Your task to perform on an android device: View the shopping cart on amazon.com. Add "razer nari" to the cart on amazon.com Image 0: 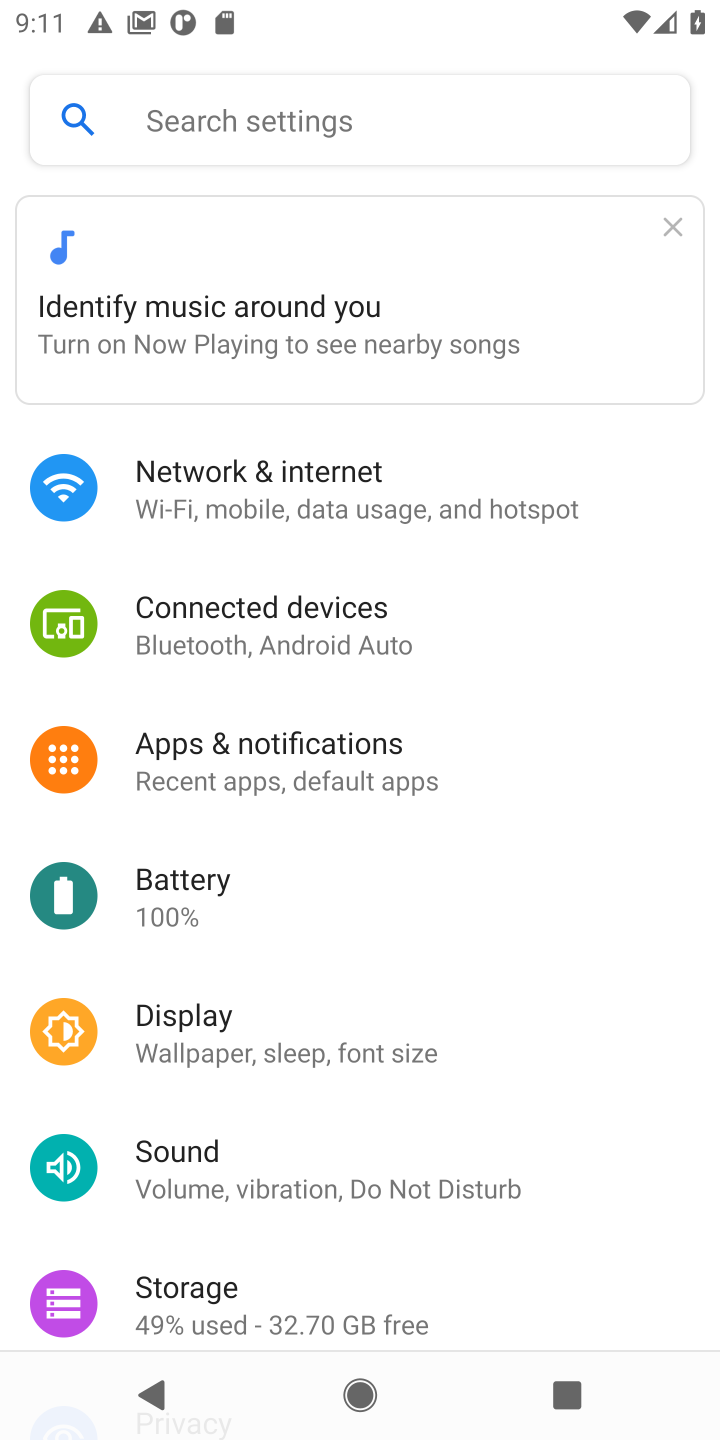
Step 0: press home button
Your task to perform on an android device: View the shopping cart on amazon.com. Add "razer nari" to the cart on amazon.com Image 1: 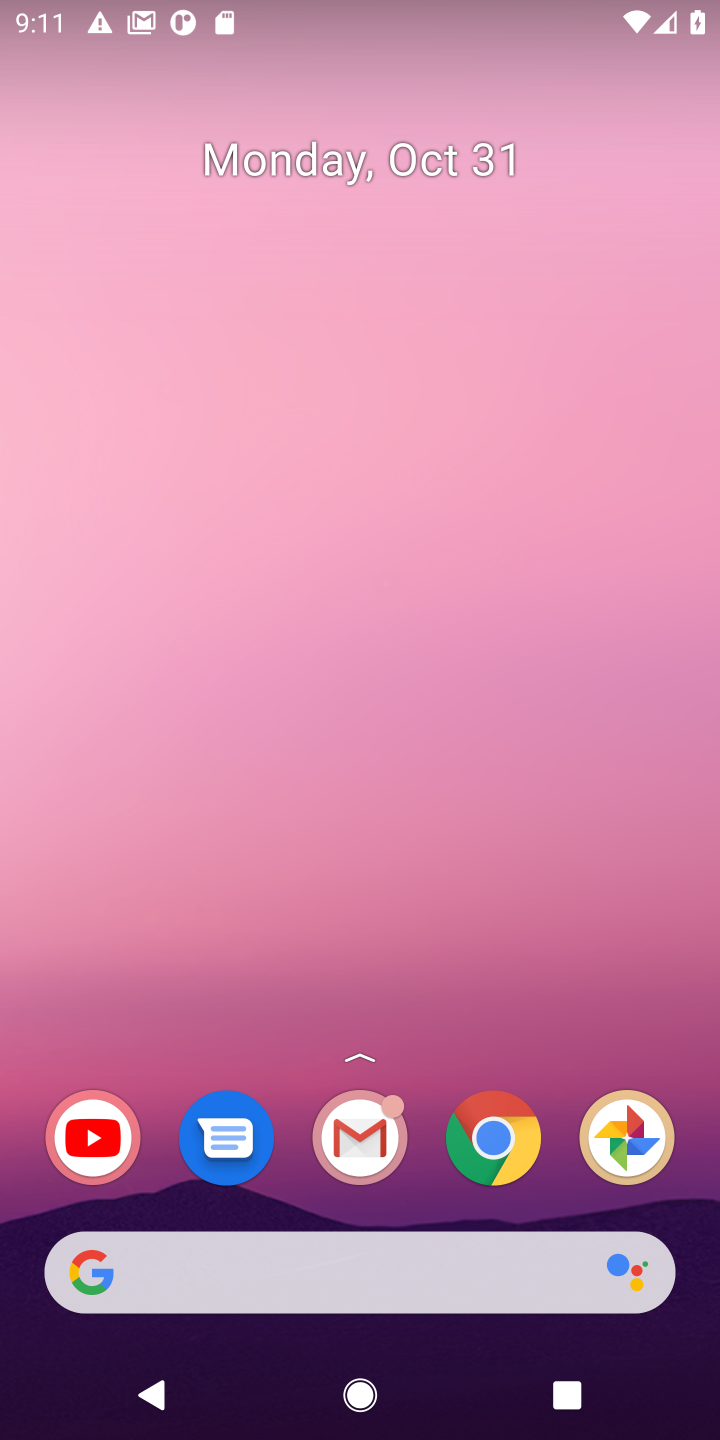
Step 1: drag from (458, 1314) to (311, 363)
Your task to perform on an android device: View the shopping cart on amazon.com. Add "razer nari" to the cart on amazon.com Image 2: 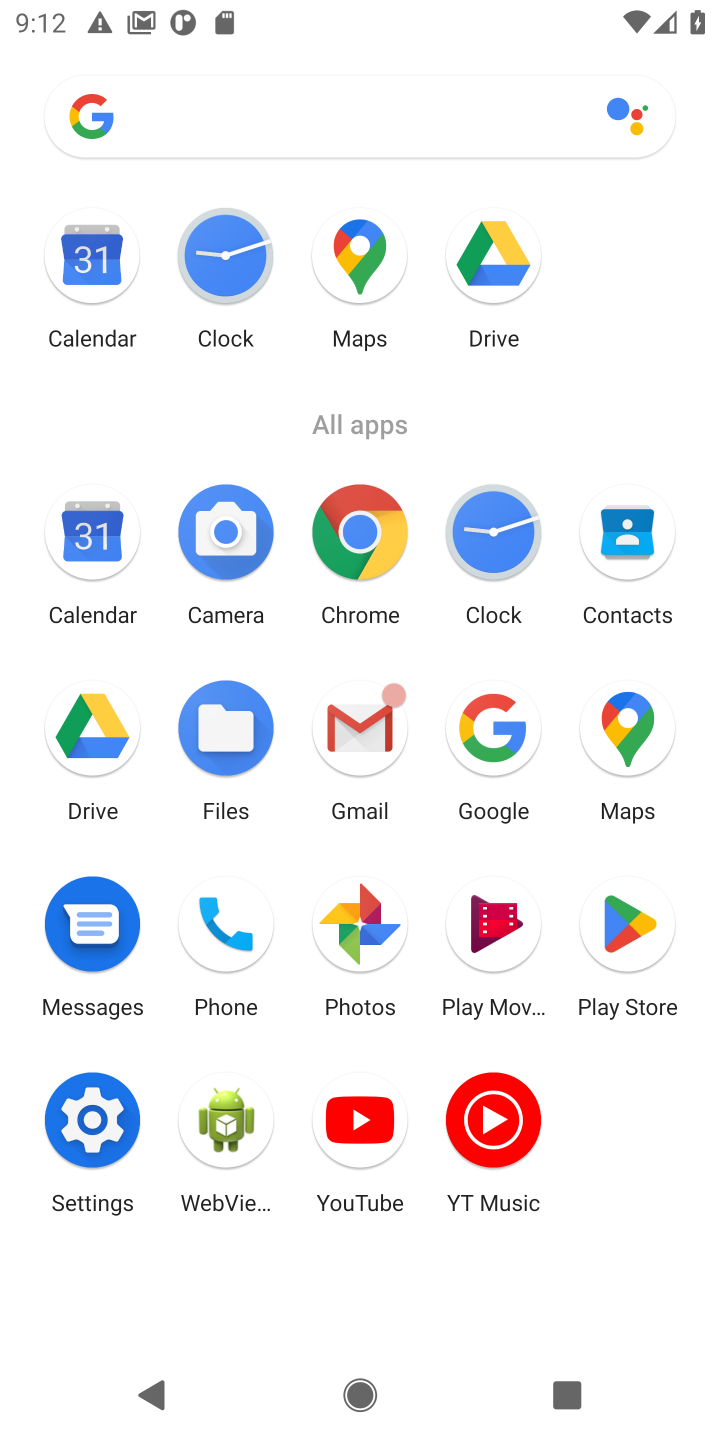
Step 2: click (360, 539)
Your task to perform on an android device: View the shopping cart on amazon.com. Add "razer nari" to the cart on amazon.com Image 3: 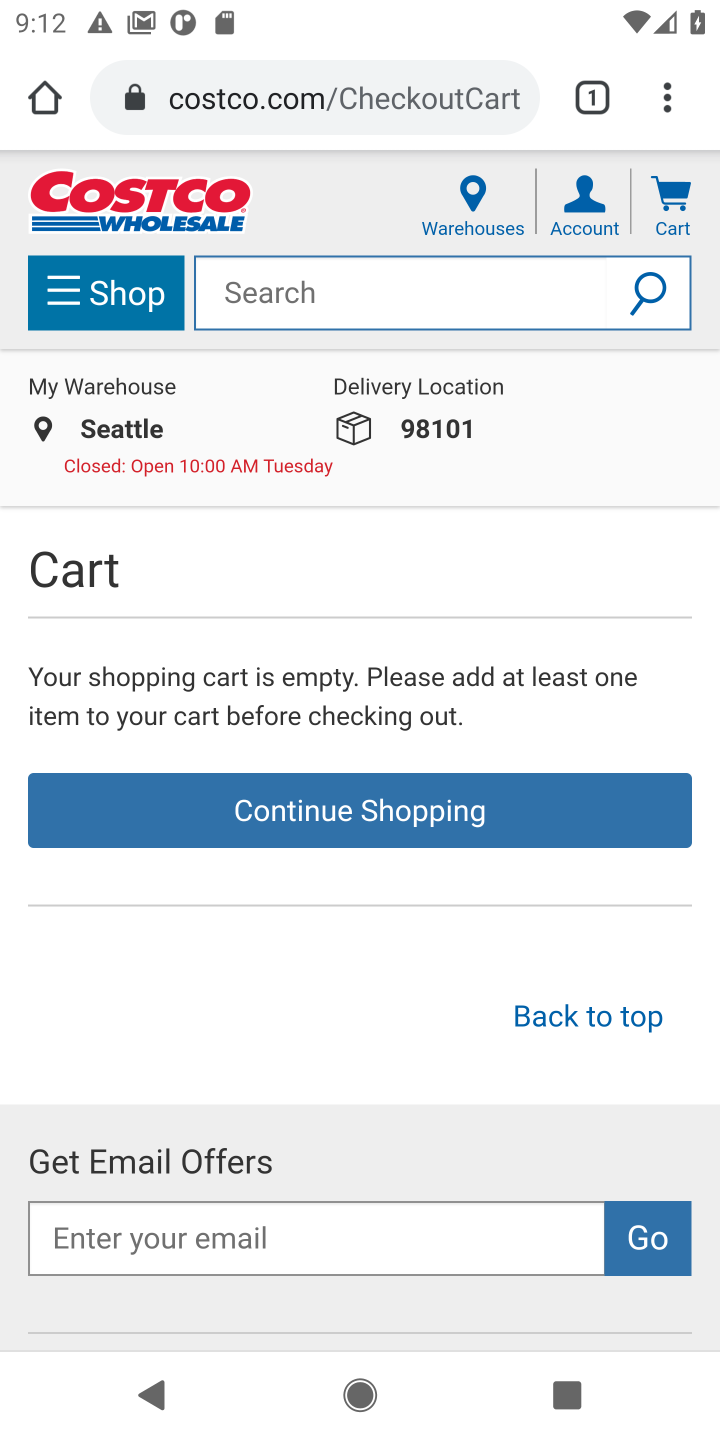
Step 3: click (275, 103)
Your task to perform on an android device: View the shopping cart on amazon.com. Add "razer nari" to the cart on amazon.com Image 4: 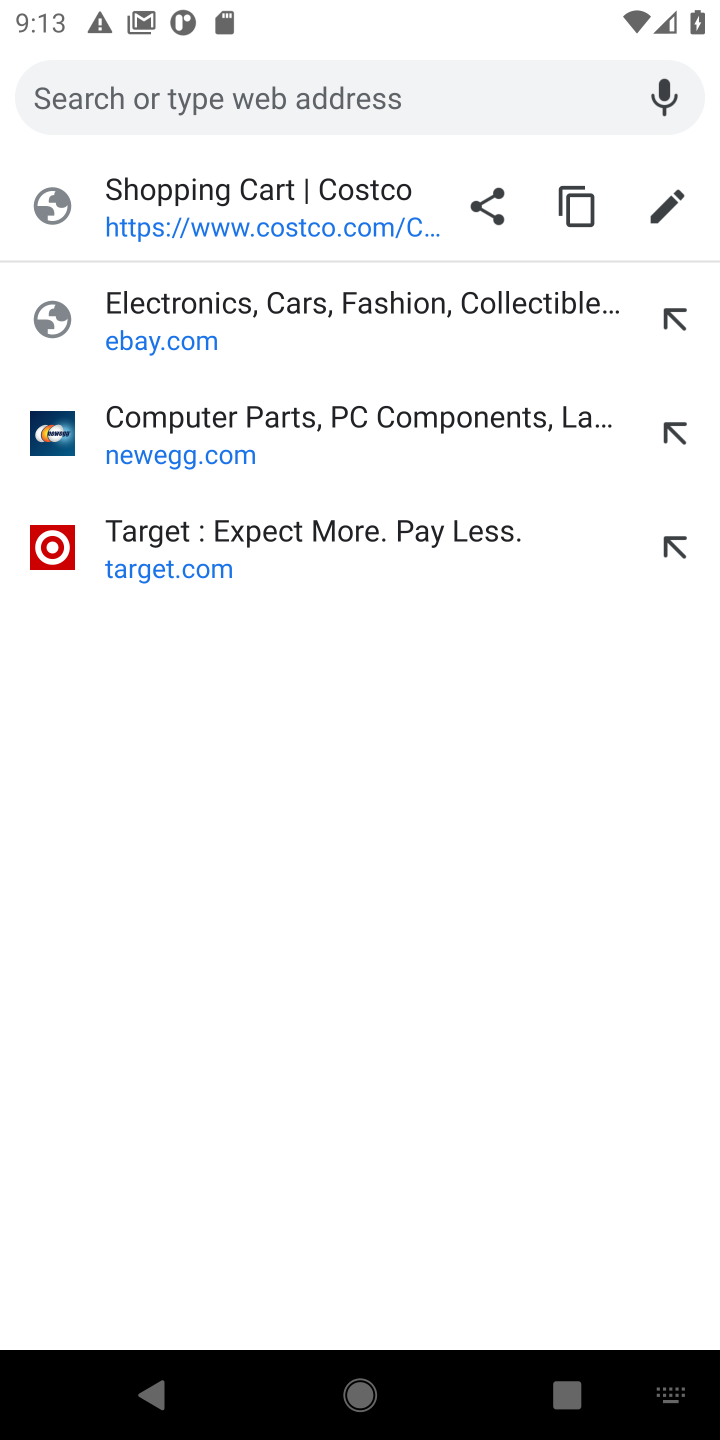
Step 4: click (398, 92)
Your task to perform on an android device: View the shopping cart on amazon.com. Add "razer nari" to the cart on amazon.com Image 5: 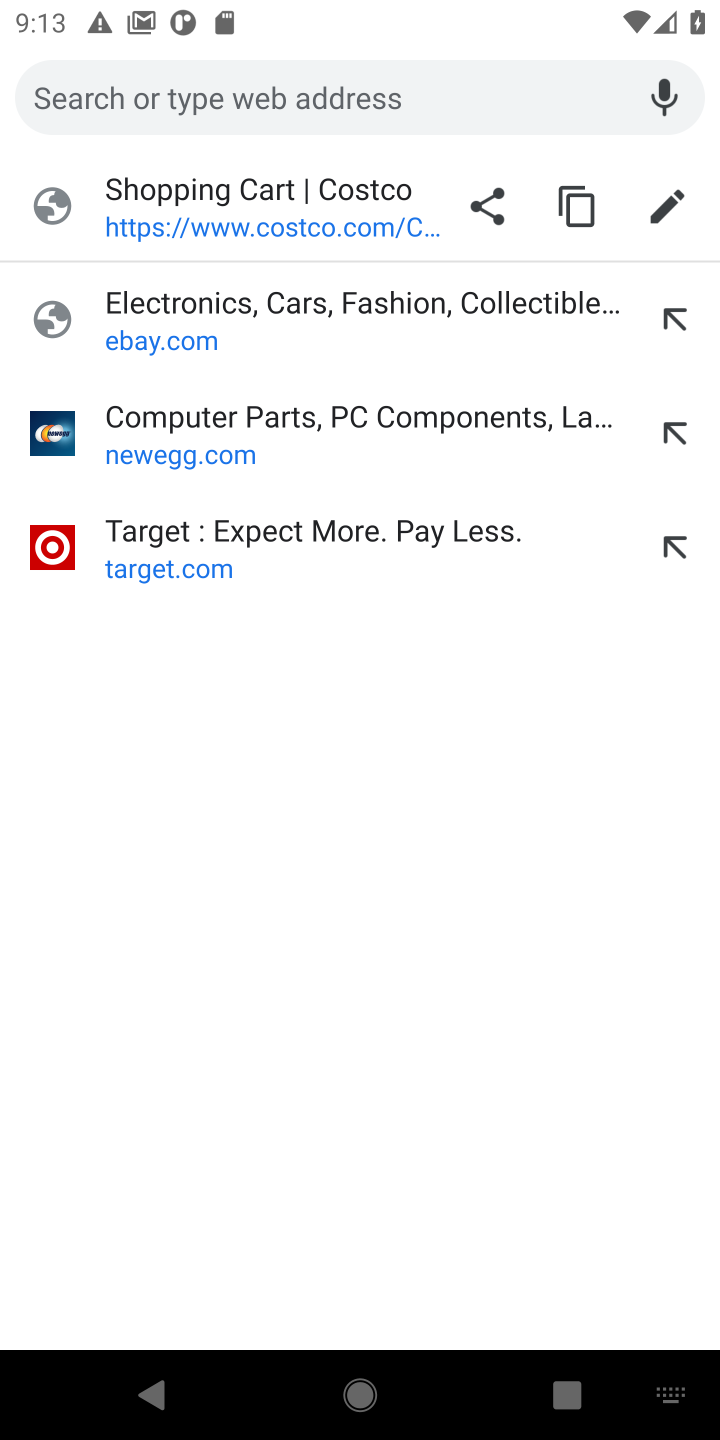
Step 5: type " amazon.com"
Your task to perform on an android device: View the shopping cart on amazon.com. Add "razer nari" to the cart on amazon.com Image 6: 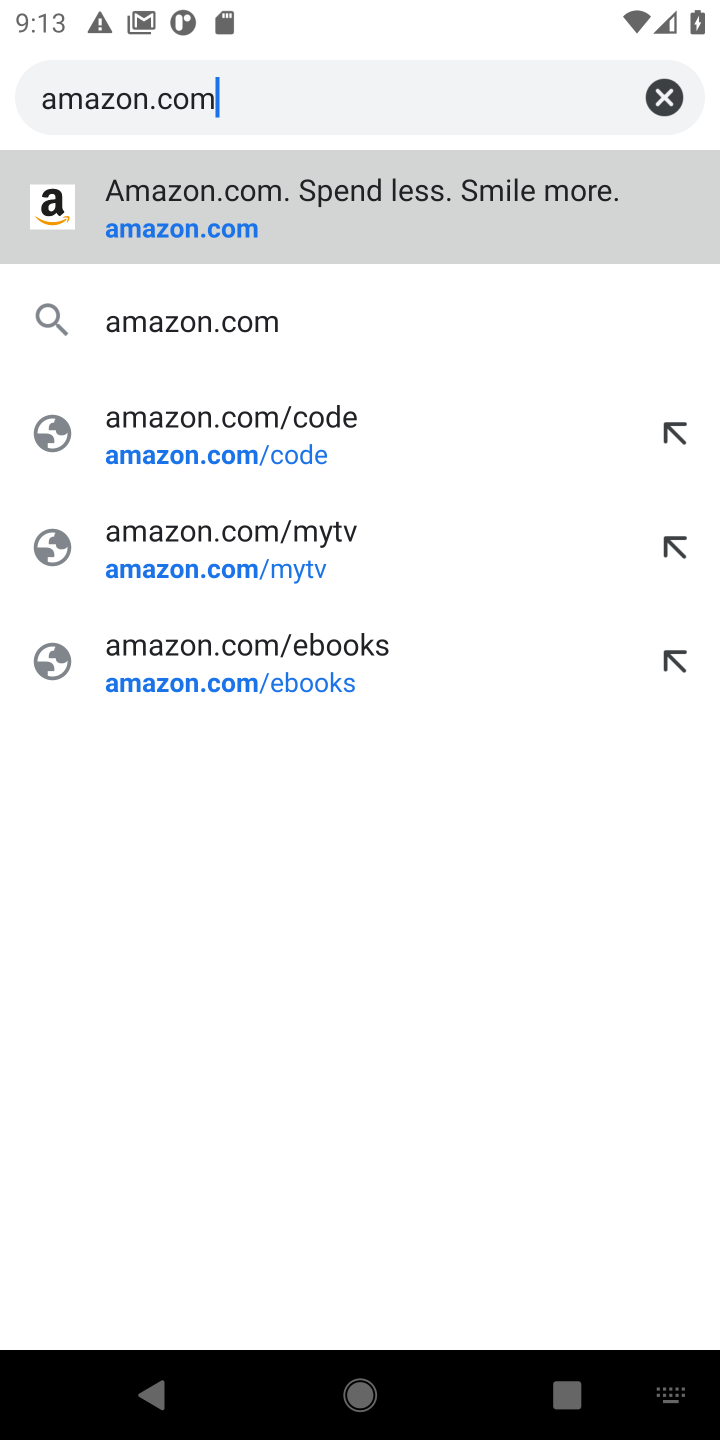
Step 6: click (179, 227)
Your task to perform on an android device: View the shopping cart on amazon.com. Add "razer nari" to the cart on amazon.com Image 7: 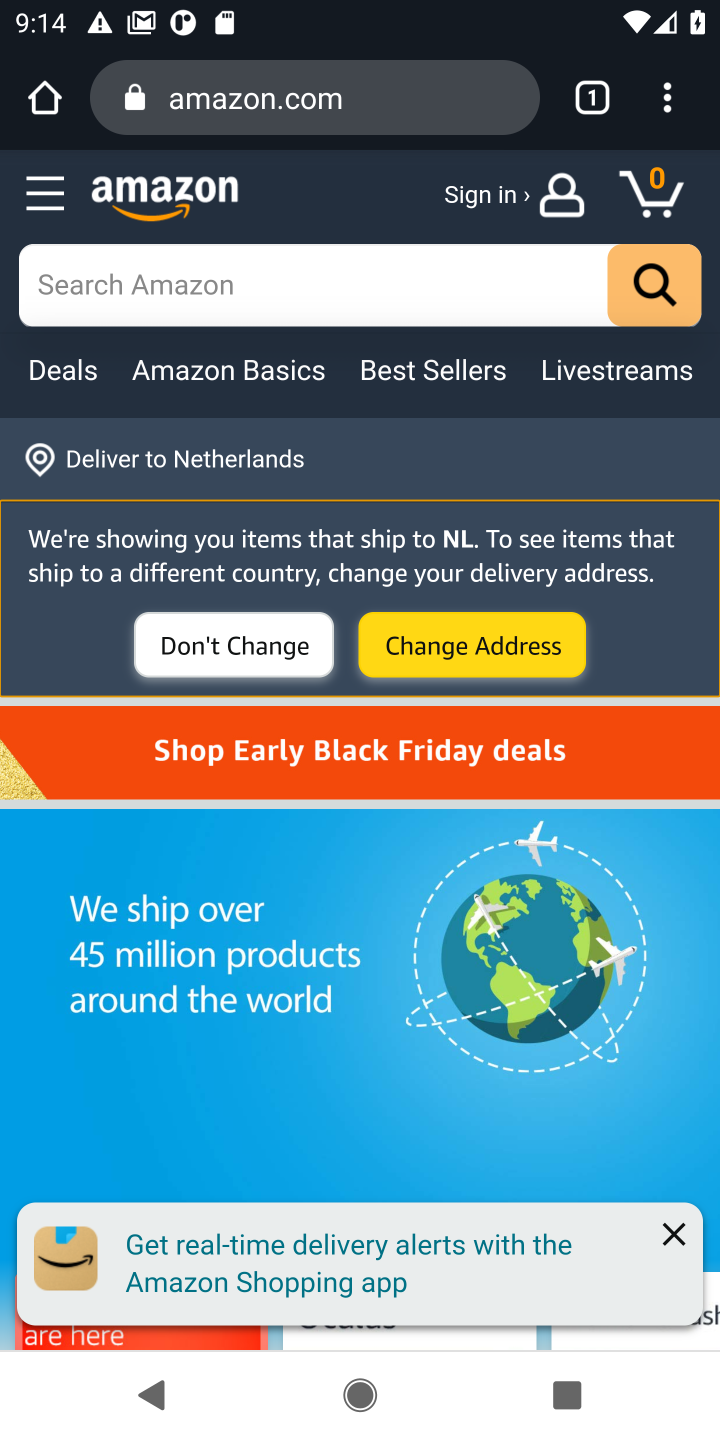
Step 7: click (336, 291)
Your task to perform on an android device: View the shopping cart on amazon.com. Add "razer nari" to the cart on amazon.com Image 8: 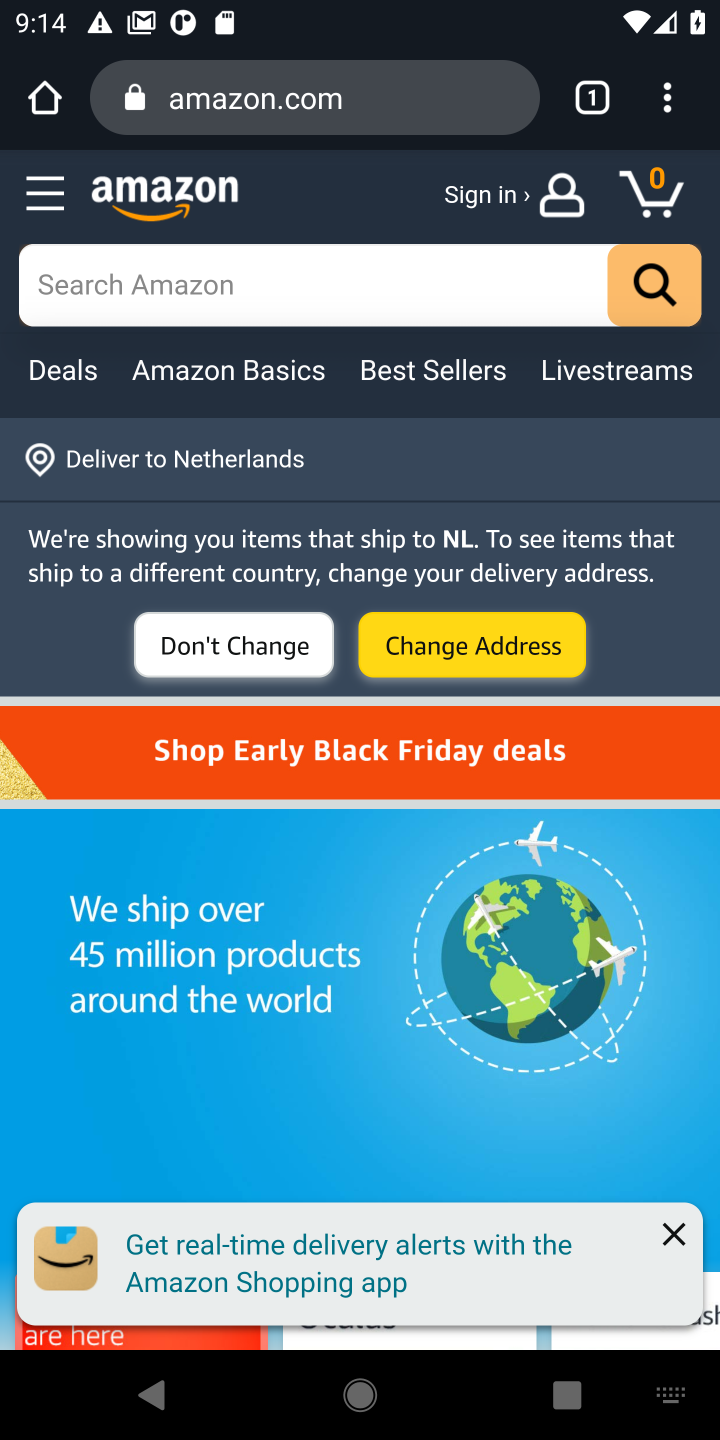
Step 8: click (89, 266)
Your task to perform on an android device: View the shopping cart on amazon.com. Add "razer nari" to the cart on amazon.com Image 9: 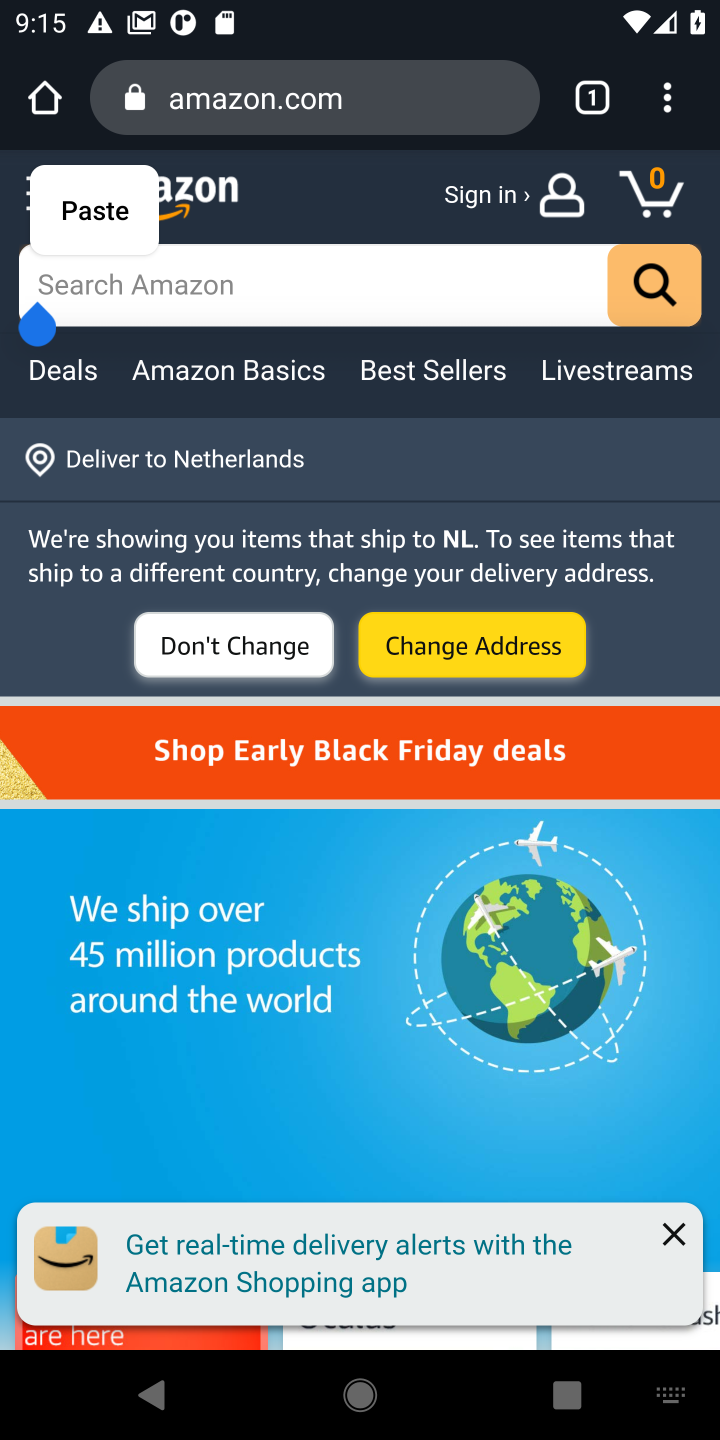
Step 9: type "razer nari"
Your task to perform on an android device: View the shopping cart on amazon.com. Add "razer nari" to the cart on amazon.com Image 10: 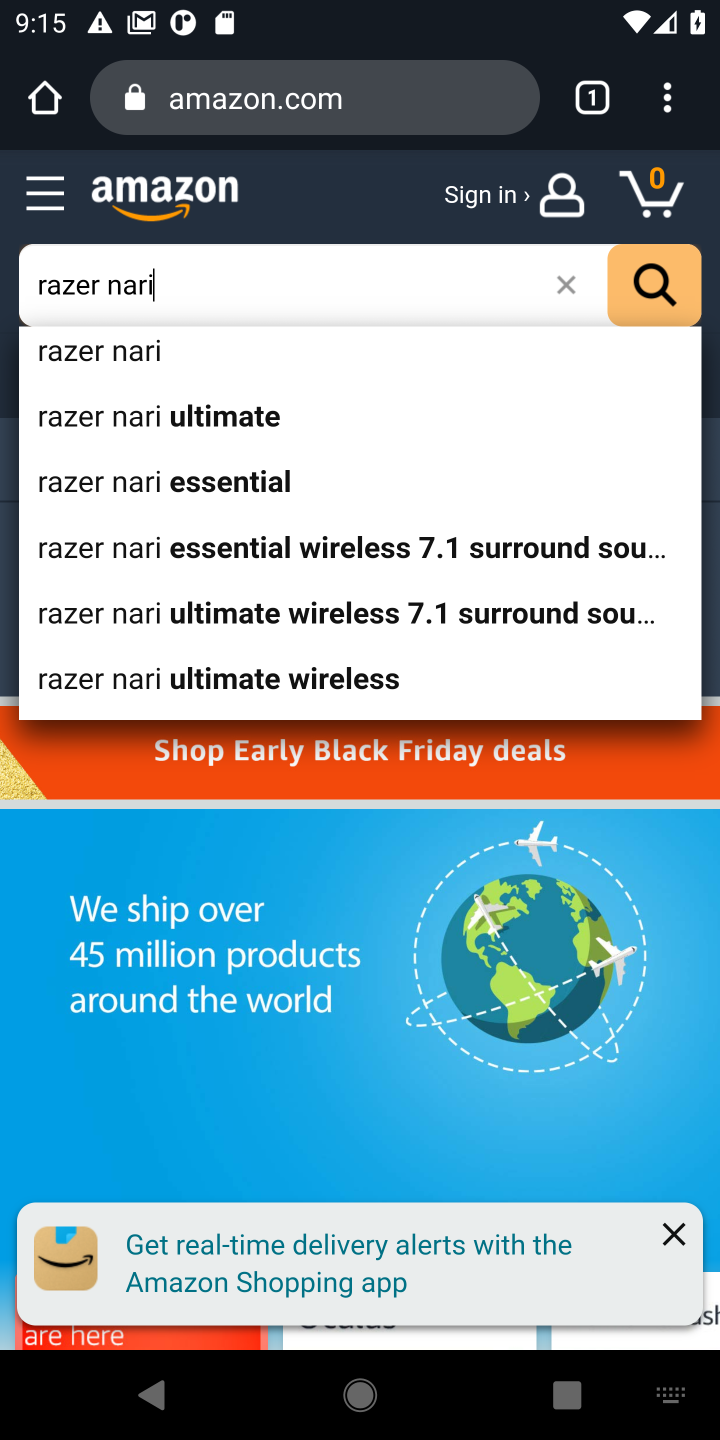
Step 10: click (142, 342)
Your task to perform on an android device: View the shopping cart on amazon.com. Add "razer nari" to the cart on amazon.com Image 11: 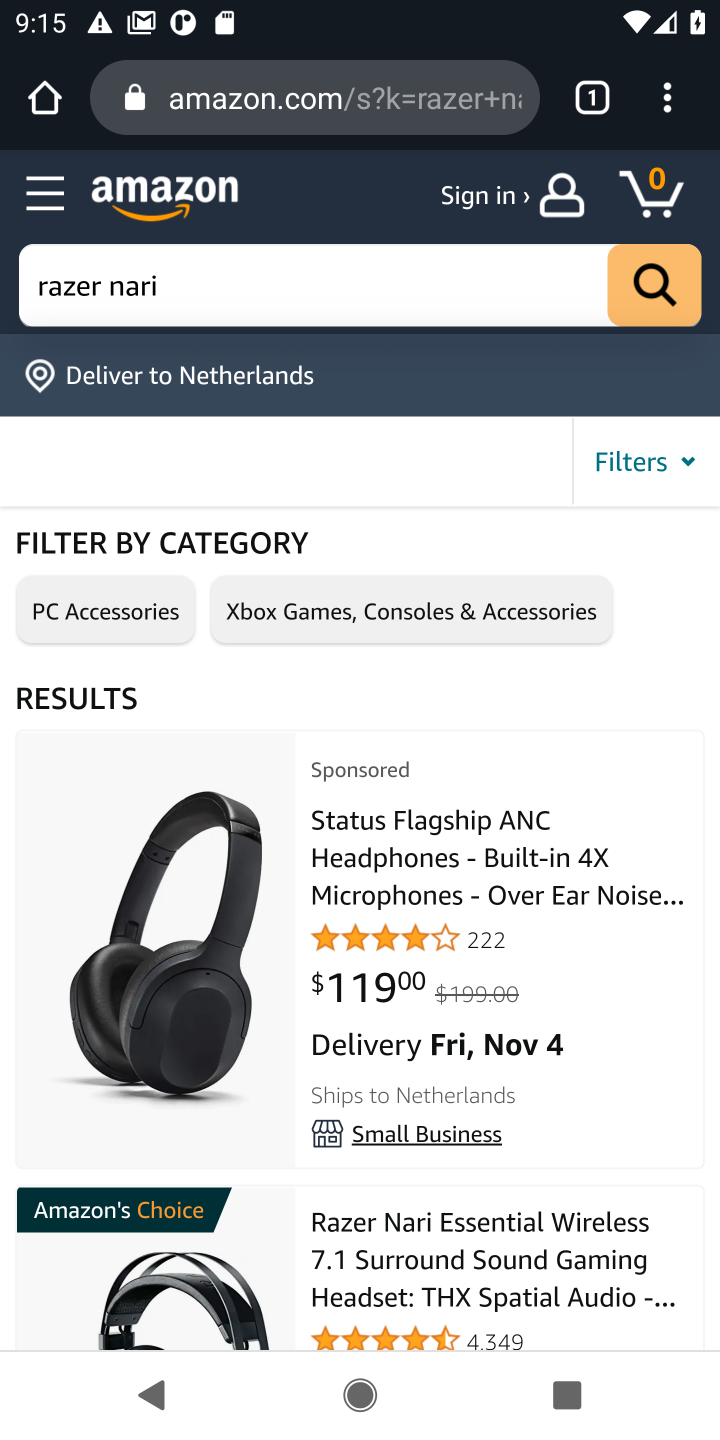
Step 11: click (200, 796)
Your task to perform on an android device: View the shopping cart on amazon.com. Add "razer nari" to the cart on amazon.com Image 12: 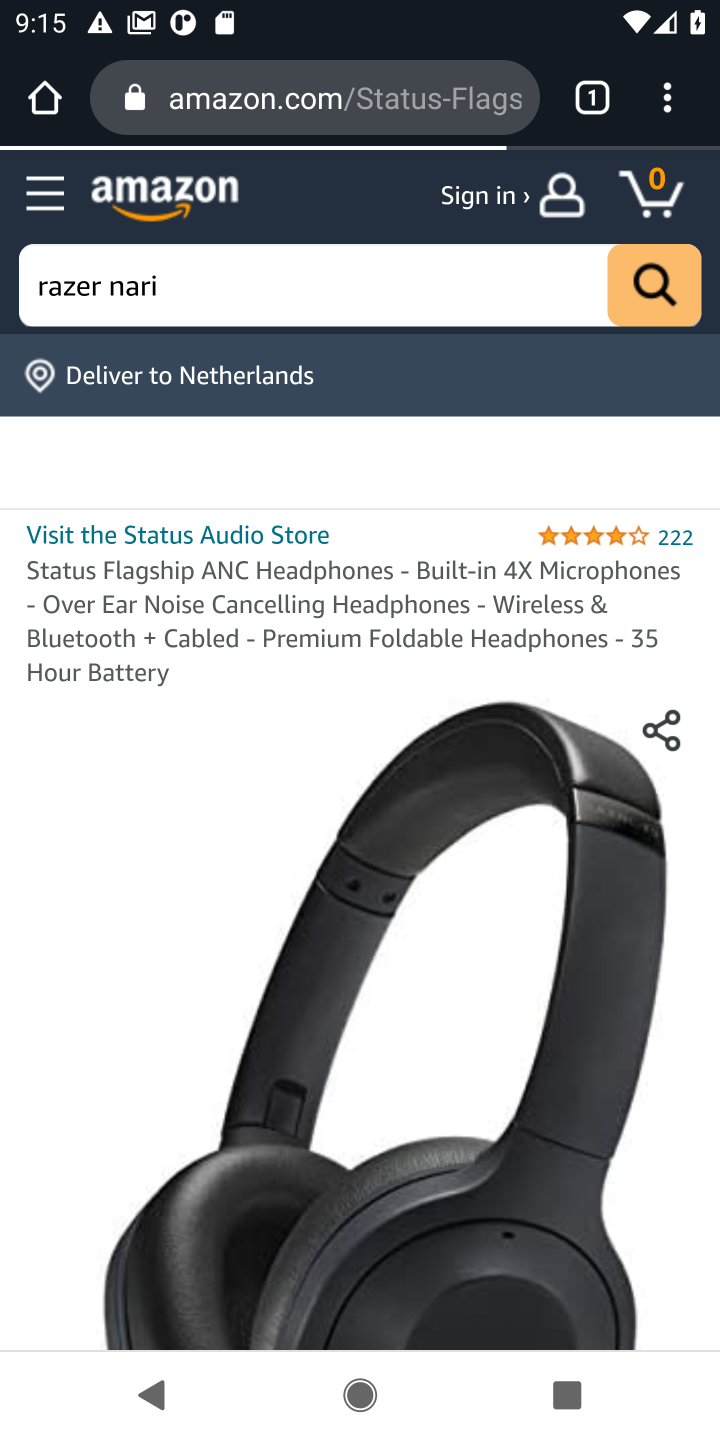
Step 12: drag from (493, 686) to (484, 172)
Your task to perform on an android device: View the shopping cart on amazon.com. Add "razer nari" to the cart on amazon.com Image 13: 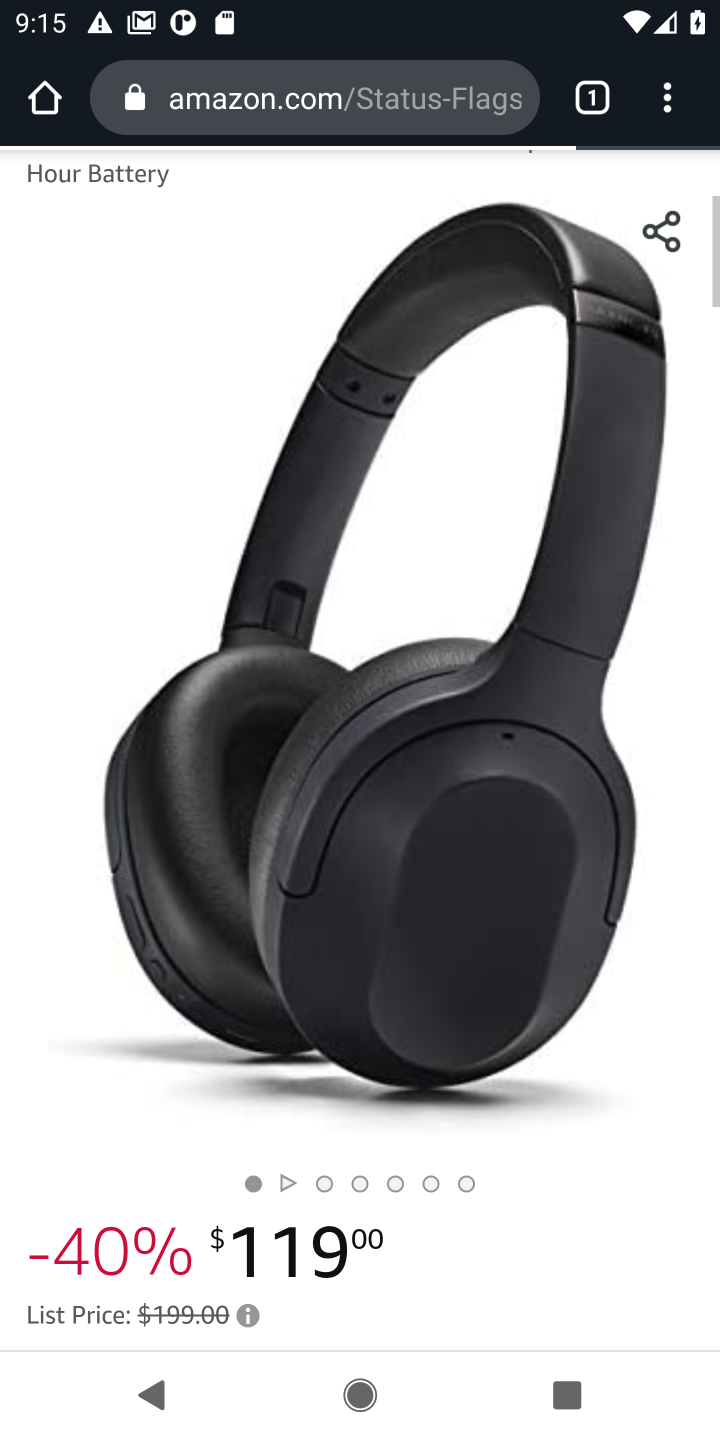
Step 13: drag from (540, 818) to (517, 198)
Your task to perform on an android device: View the shopping cart on amazon.com. Add "razer nari" to the cart on amazon.com Image 14: 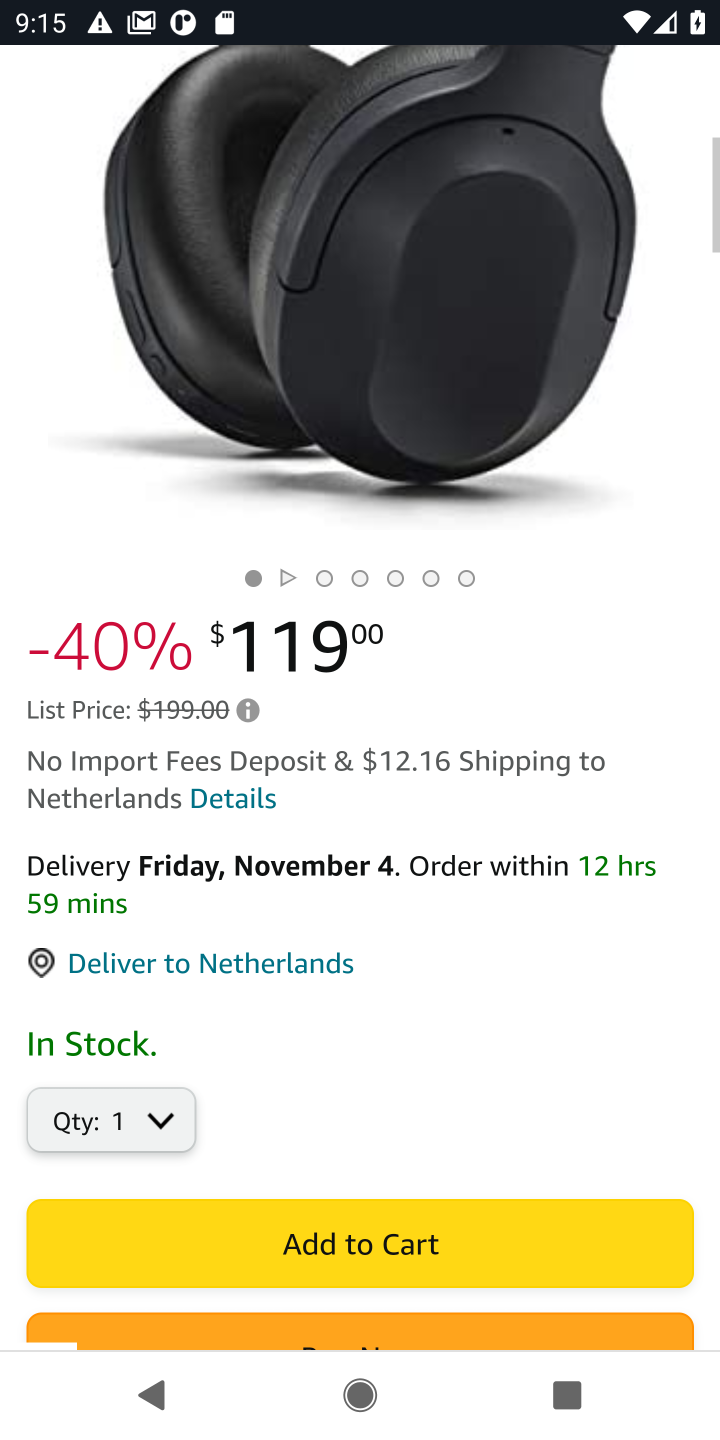
Step 14: drag from (508, 1081) to (504, 513)
Your task to perform on an android device: View the shopping cart on amazon.com. Add "razer nari" to the cart on amazon.com Image 15: 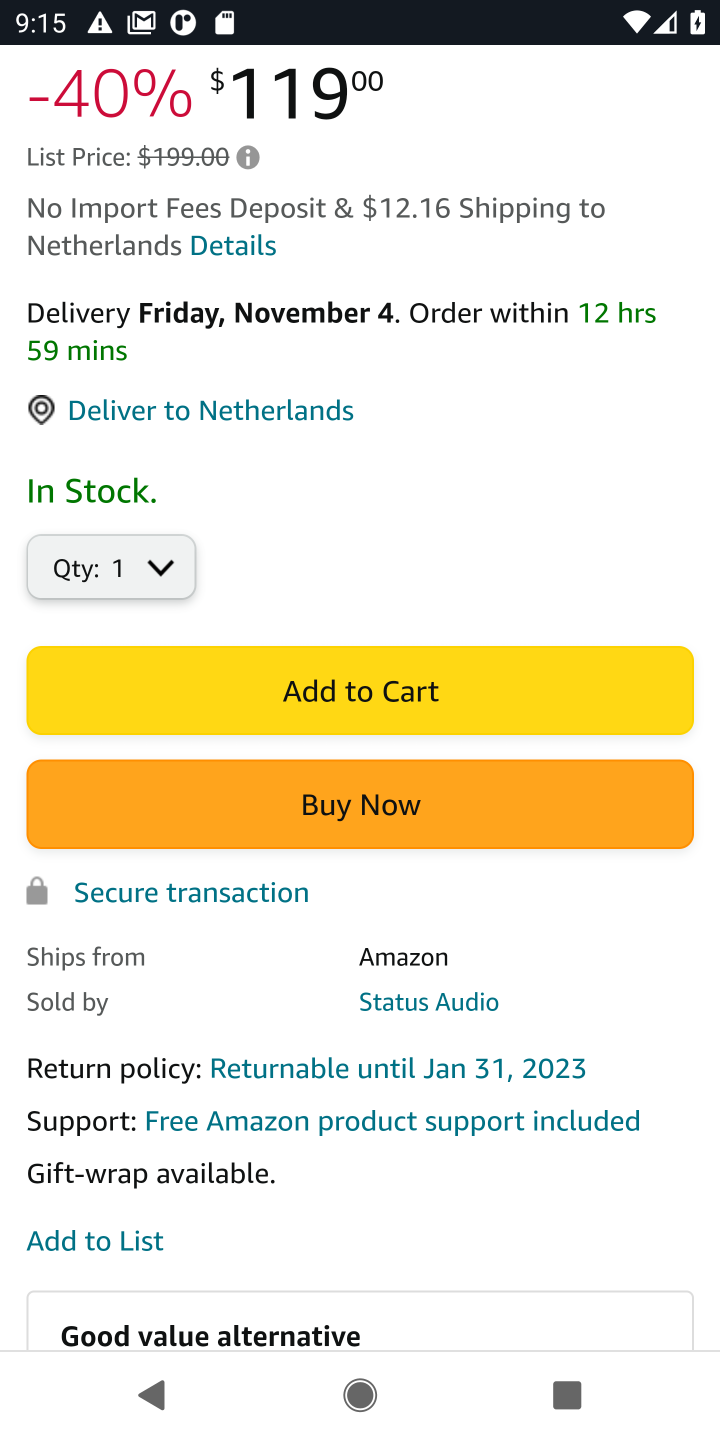
Step 15: click (362, 696)
Your task to perform on an android device: View the shopping cart on amazon.com. Add "razer nari" to the cart on amazon.com Image 16: 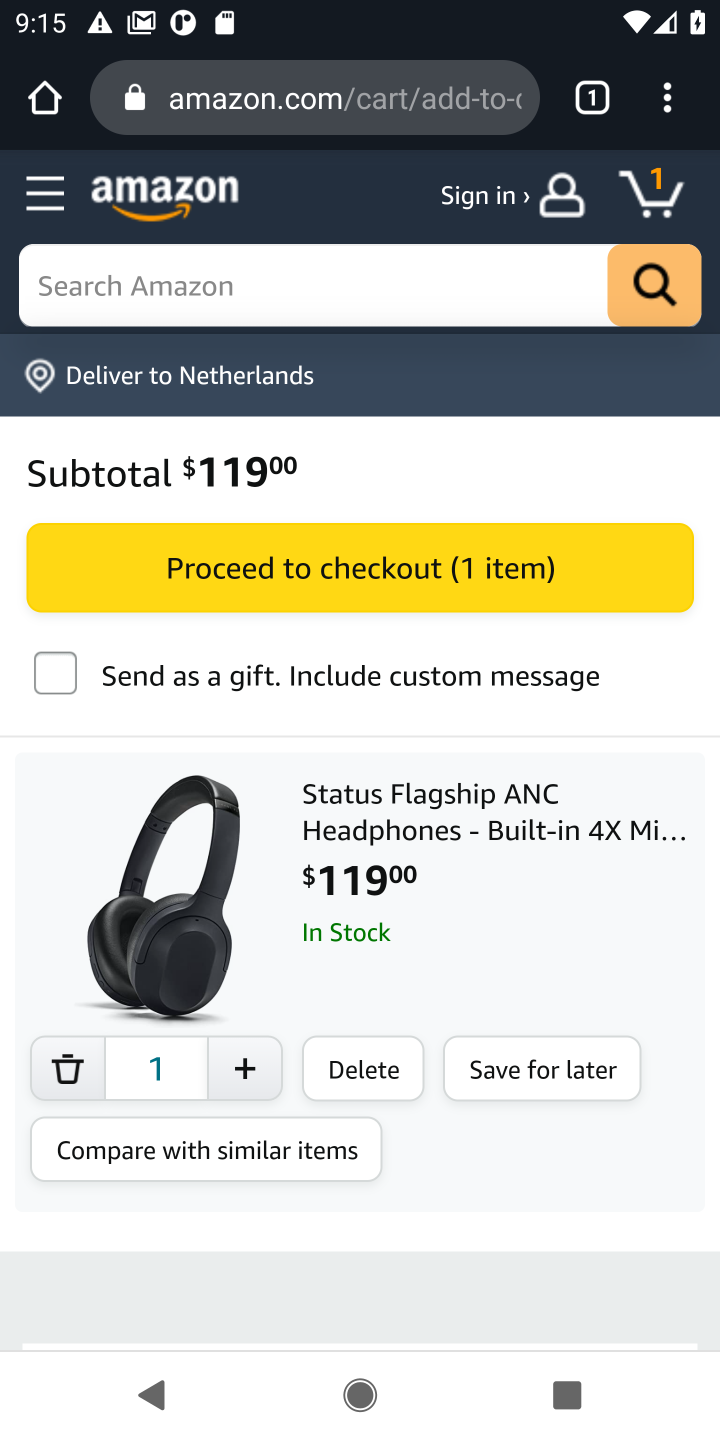
Step 16: task complete